Your task to perform on an android device: Open the web browser Image 0: 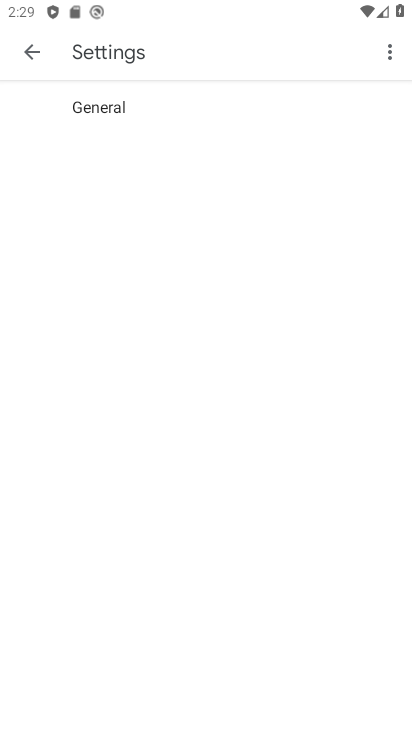
Step 0: press home button
Your task to perform on an android device: Open the web browser Image 1: 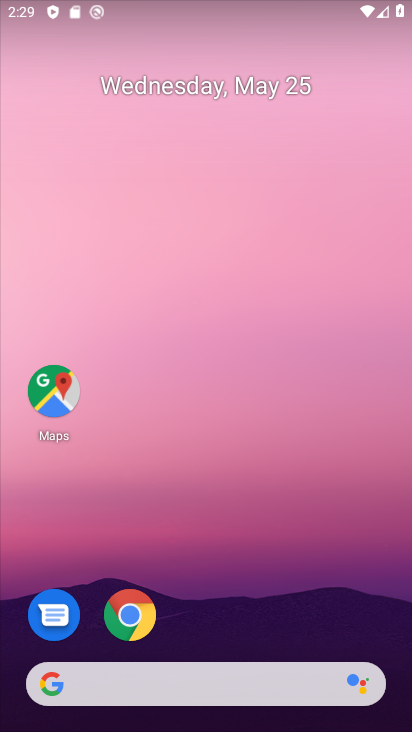
Step 1: click (140, 624)
Your task to perform on an android device: Open the web browser Image 2: 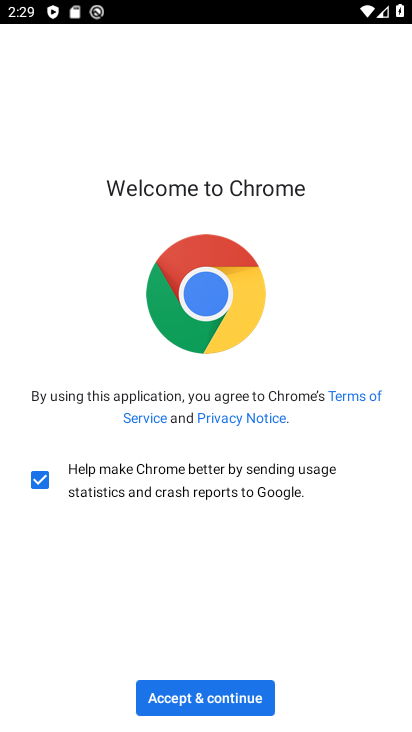
Step 2: click (194, 693)
Your task to perform on an android device: Open the web browser Image 3: 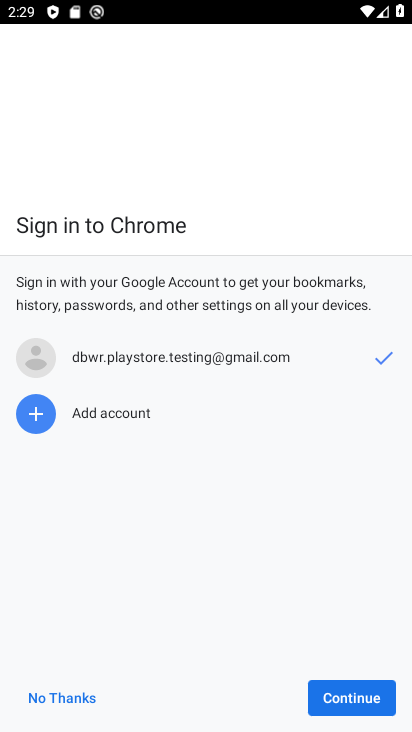
Step 3: click (342, 693)
Your task to perform on an android device: Open the web browser Image 4: 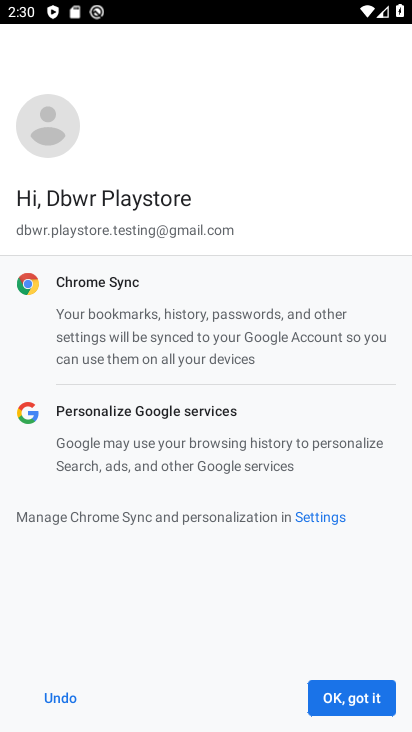
Step 4: click (342, 693)
Your task to perform on an android device: Open the web browser Image 5: 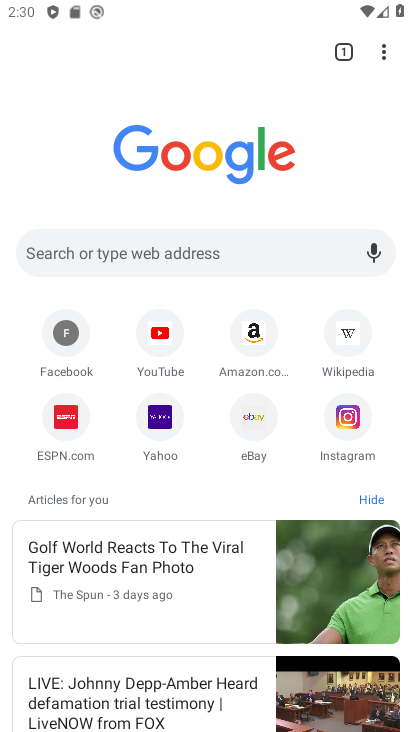
Step 5: task complete